Your task to perform on an android device: What's the weather going to be tomorrow? Image 0: 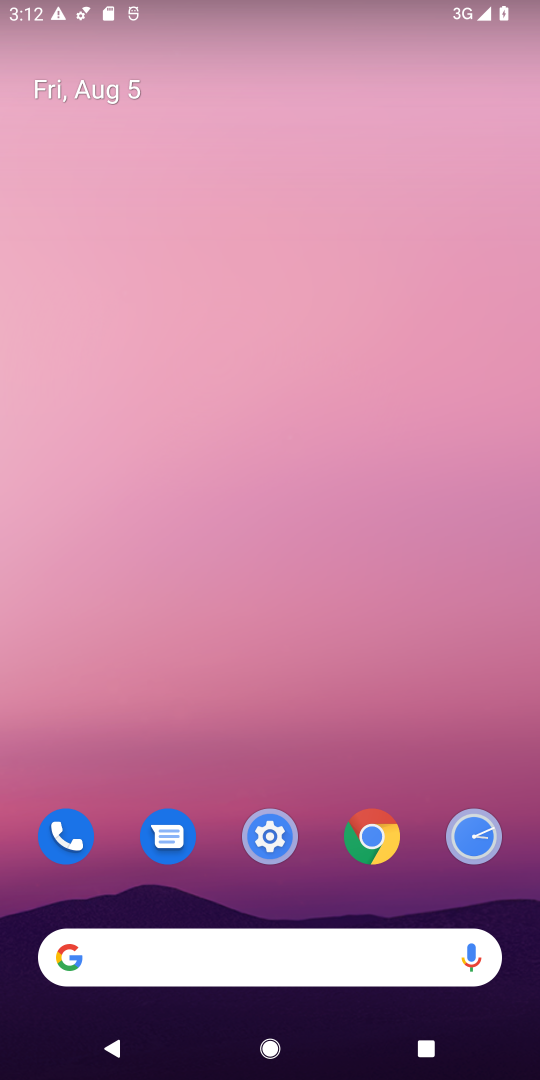
Step 0: drag from (171, 871) to (209, 0)
Your task to perform on an android device: What's the weather going to be tomorrow? Image 1: 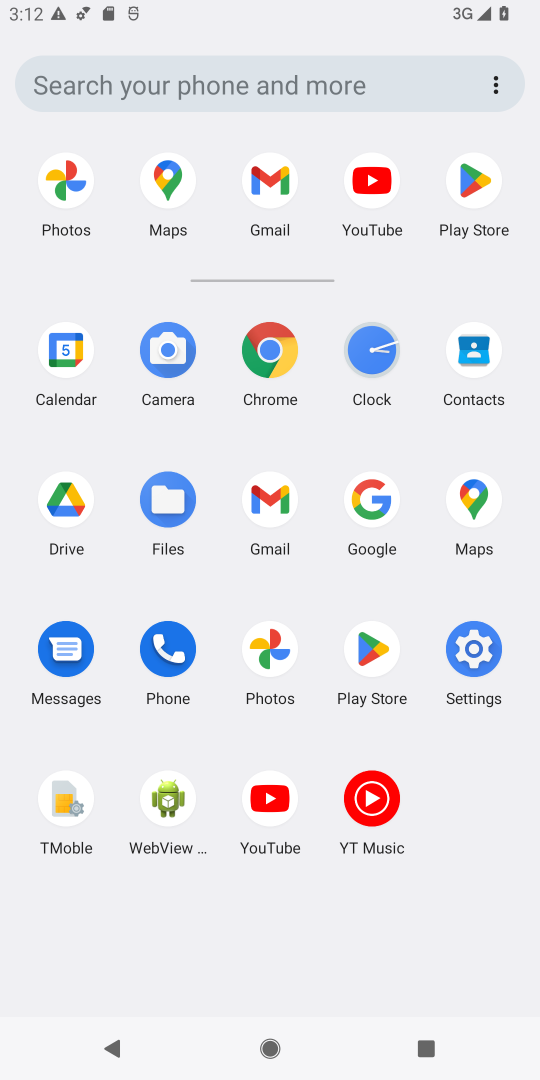
Step 1: click (385, 511)
Your task to perform on an android device: What's the weather going to be tomorrow? Image 2: 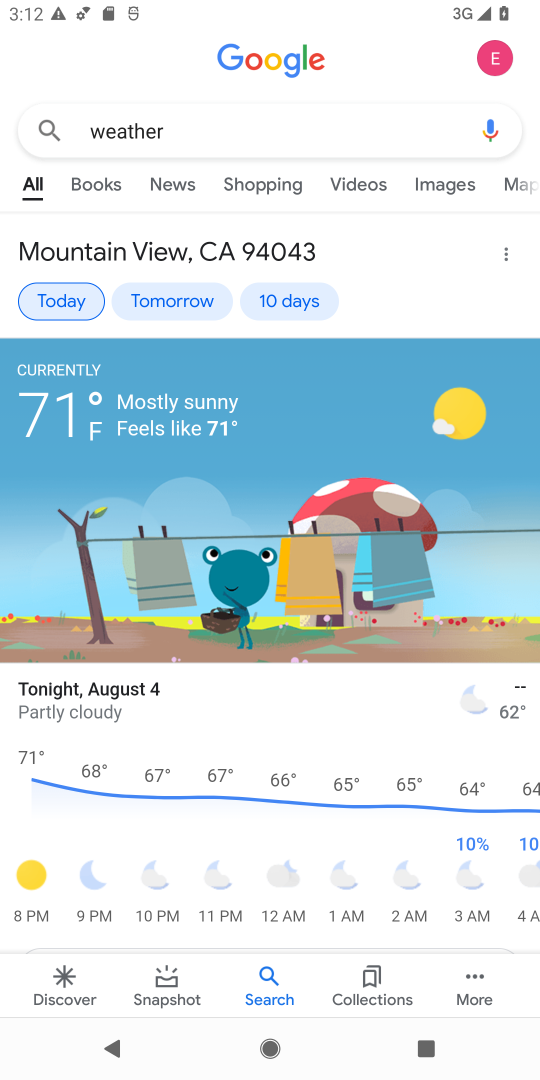
Step 2: click (209, 306)
Your task to perform on an android device: What's the weather going to be tomorrow? Image 3: 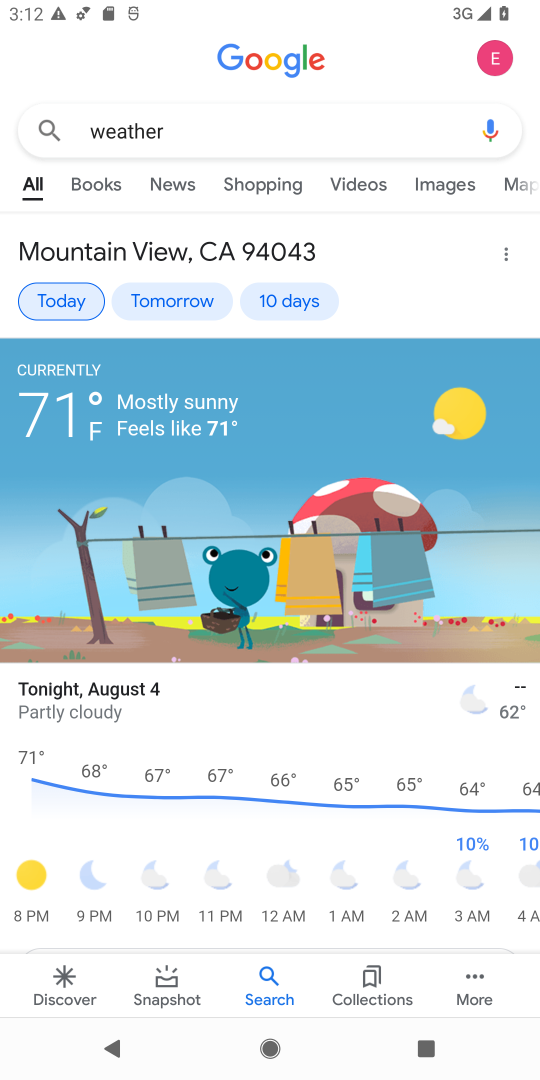
Step 3: click (169, 295)
Your task to perform on an android device: What's the weather going to be tomorrow? Image 4: 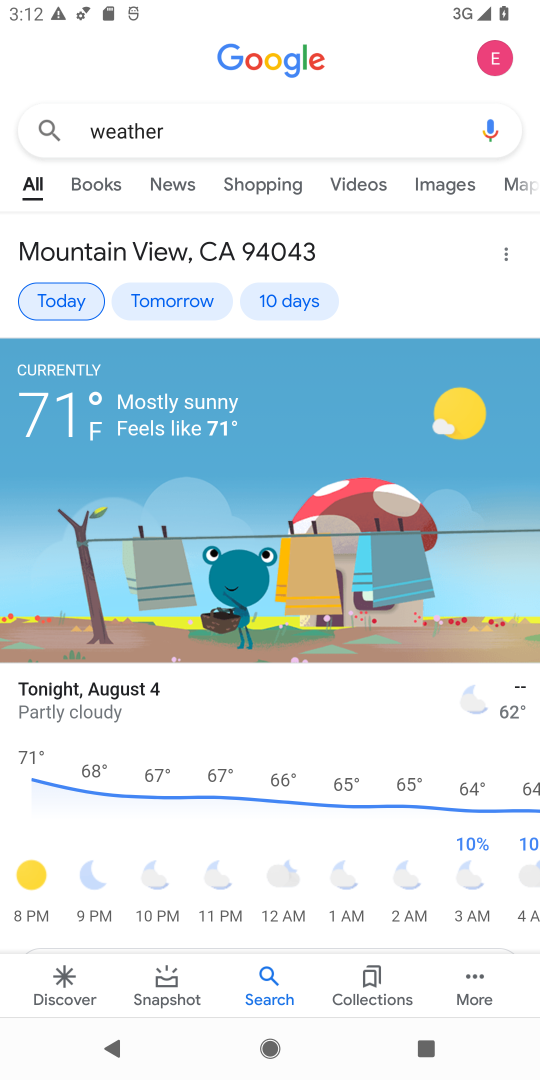
Step 4: click (169, 295)
Your task to perform on an android device: What's the weather going to be tomorrow? Image 5: 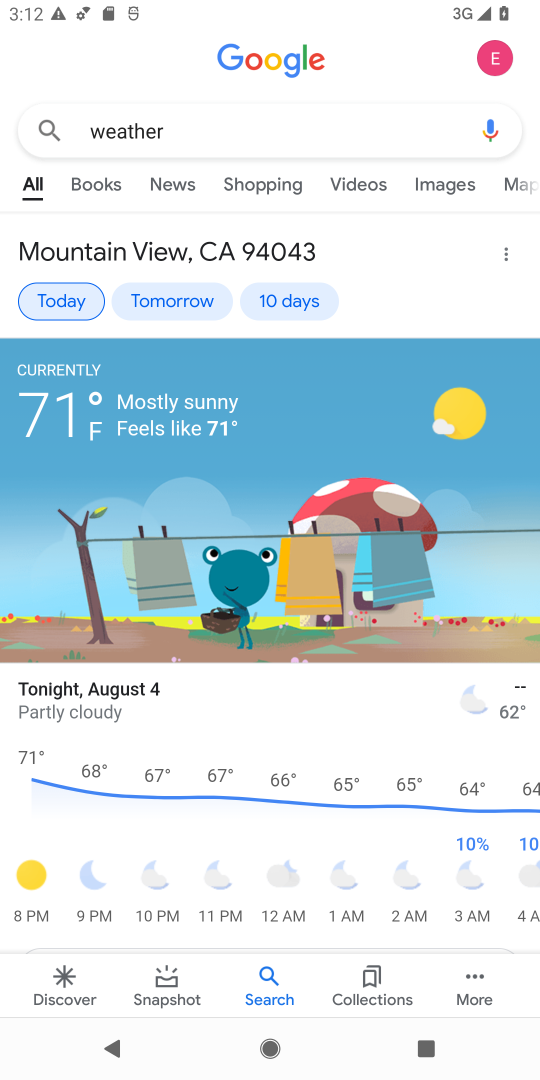
Step 5: click (169, 295)
Your task to perform on an android device: What's the weather going to be tomorrow? Image 6: 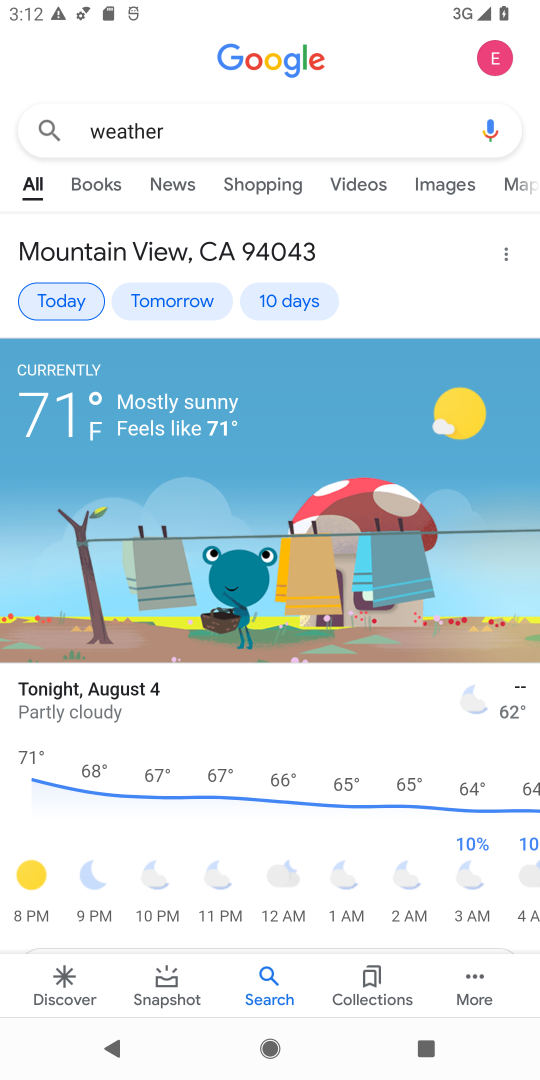
Step 6: click (169, 295)
Your task to perform on an android device: What's the weather going to be tomorrow? Image 7: 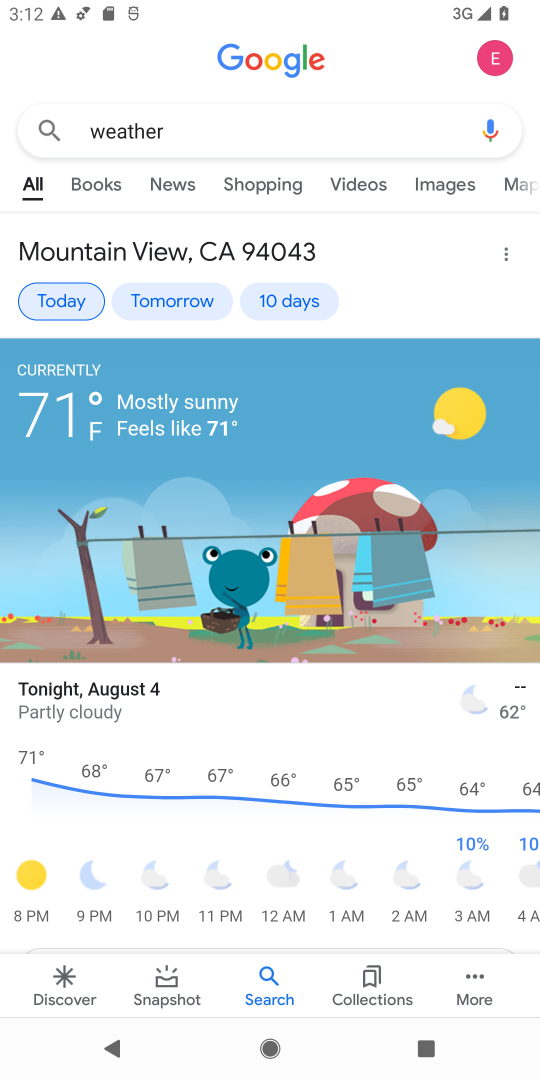
Step 7: click (179, 312)
Your task to perform on an android device: What's the weather going to be tomorrow? Image 8: 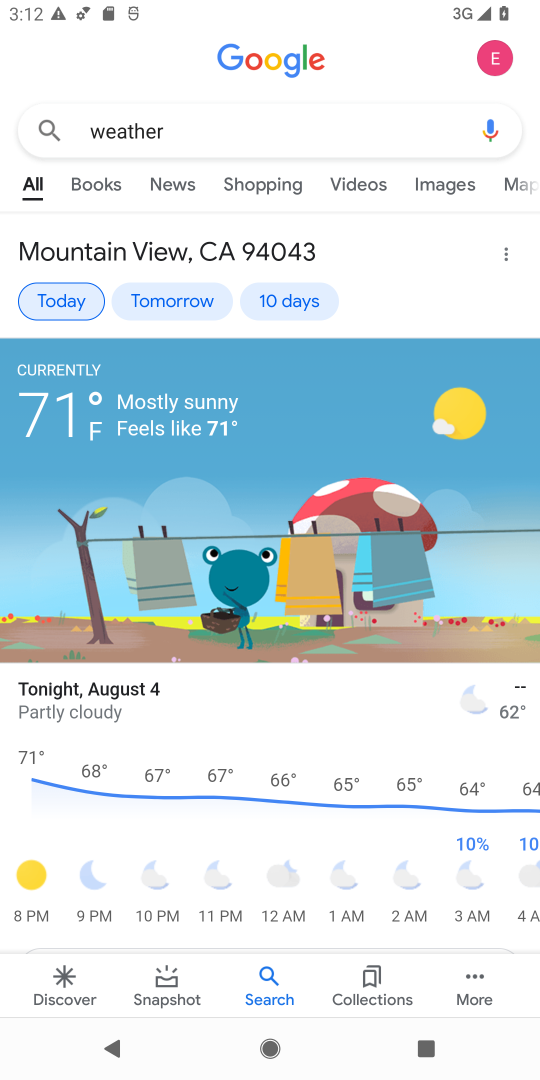
Step 8: click (173, 302)
Your task to perform on an android device: What's the weather going to be tomorrow? Image 9: 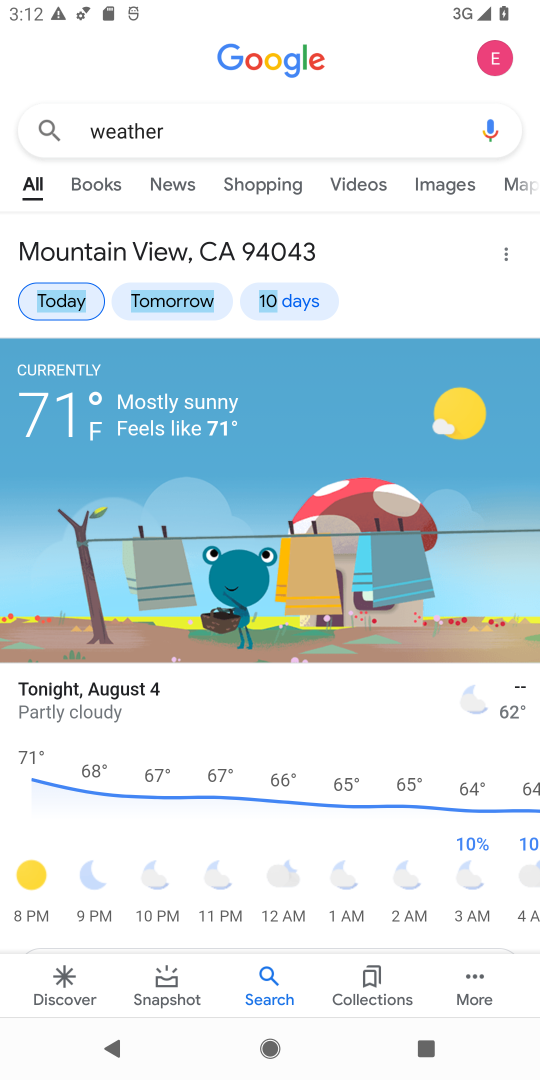
Step 9: click (171, 302)
Your task to perform on an android device: What's the weather going to be tomorrow? Image 10: 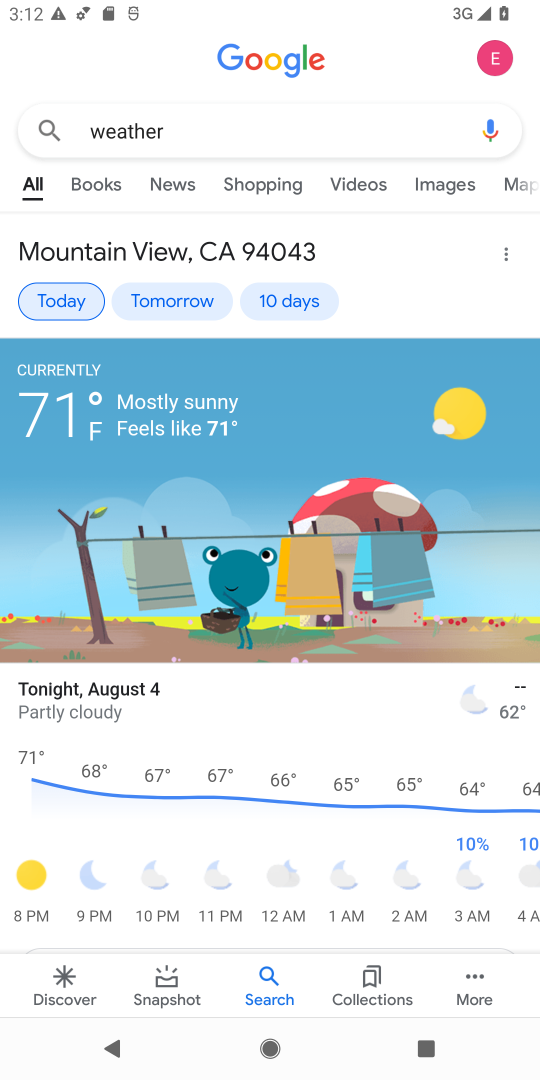
Step 10: click (71, 309)
Your task to perform on an android device: What's the weather going to be tomorrow? Image 11: 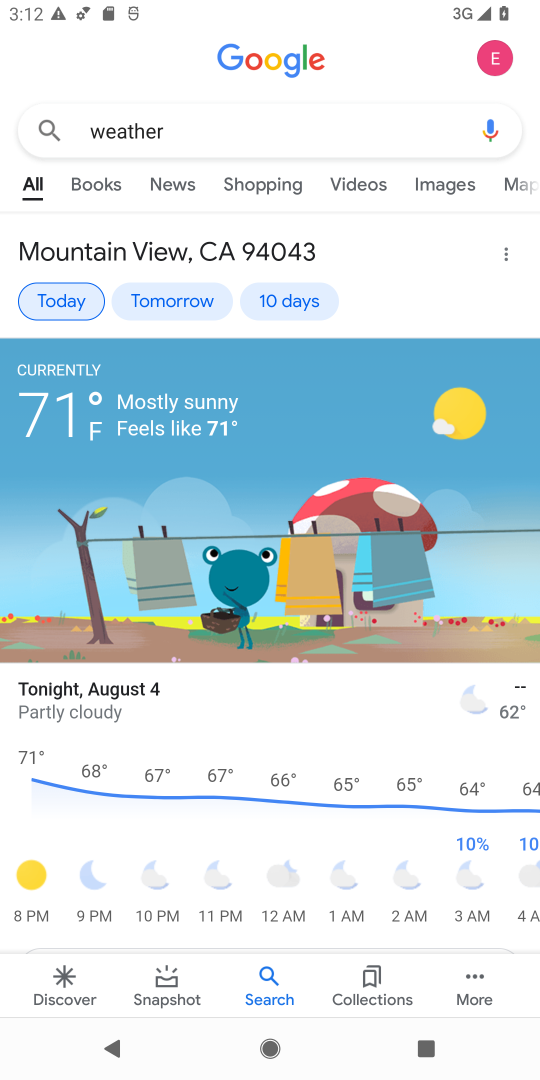
Step 11: click (155, 307)
Your task to perform on an android device: What's the weather going to be tomorrow? Image 12: 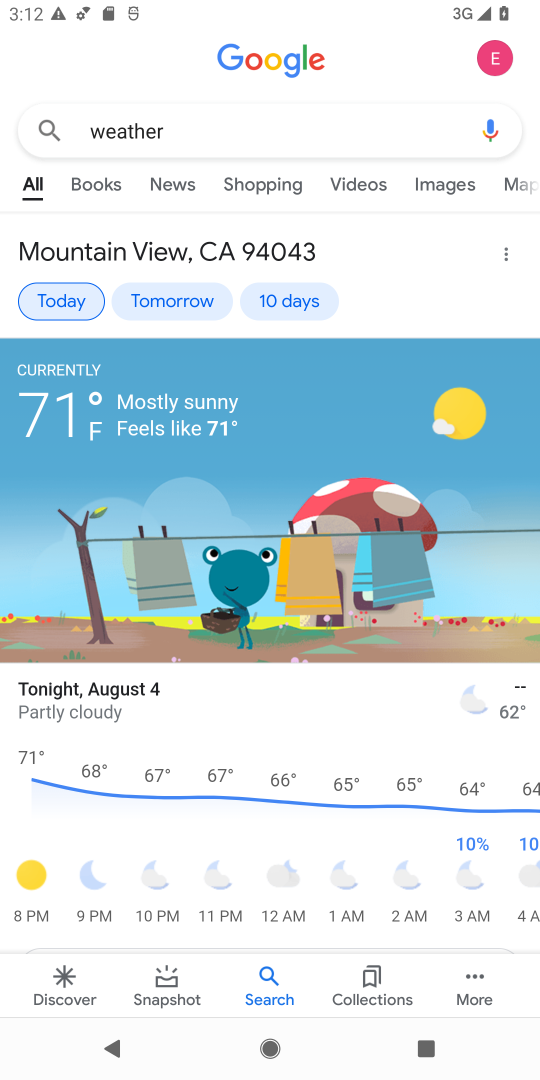
Step 12: click (155, 306)
Your task to perform on an android device: What's the weather going to be tomorrow? Image 13: 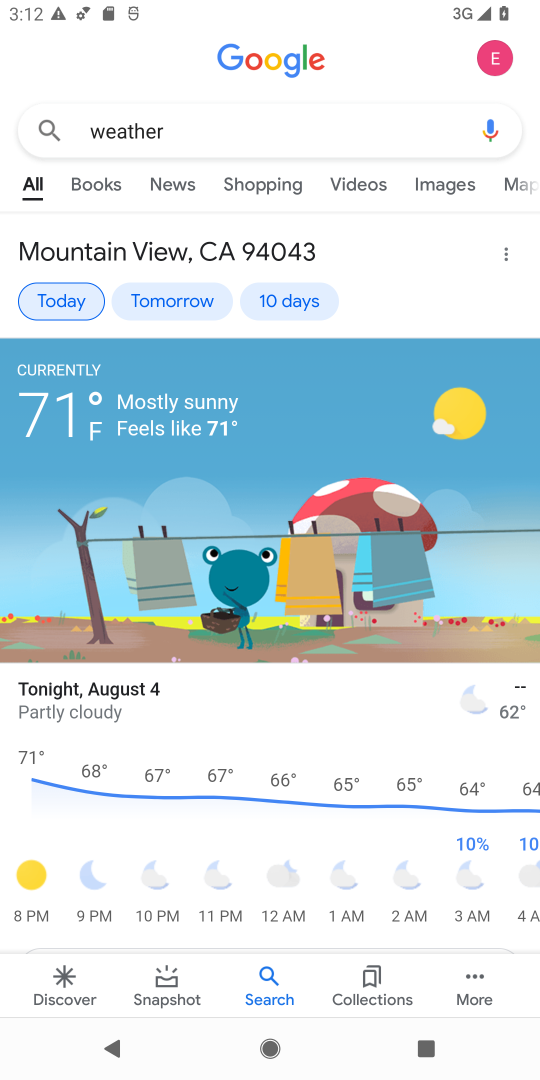
Step 13: task complete